Your task to perform on an android device: Find coffee shops on Maps Image 0: 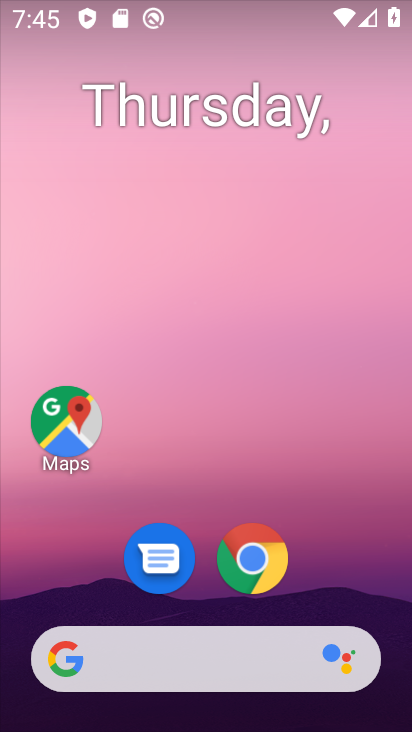
Step 0: drag from (142, 620) to (227, 61)
Your task to perform on an android device: Find coffee shops on Maps Image 1: 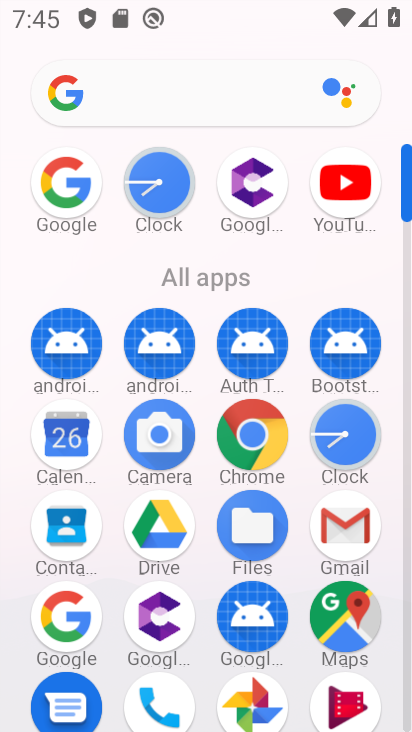
Step 1: click (334, 629)
Your task to perform on an android device: Find coffee shops on Maps Image 2: 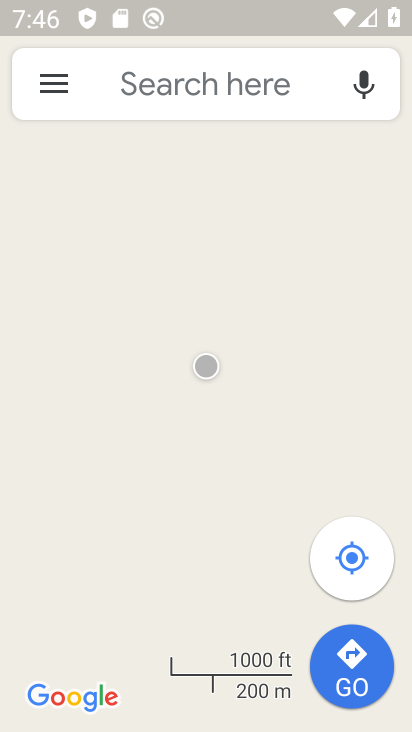
Step 2: click (221, 91)
Your task to perform on an android device: Find coffee shops on Maps Image 3: 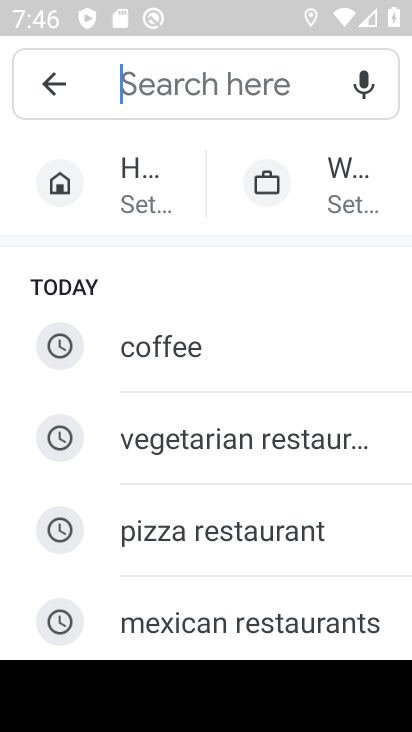
Step 3: click (185, 355)
Your task to perform on an android device: Find coffee shops on Maps Image 4: 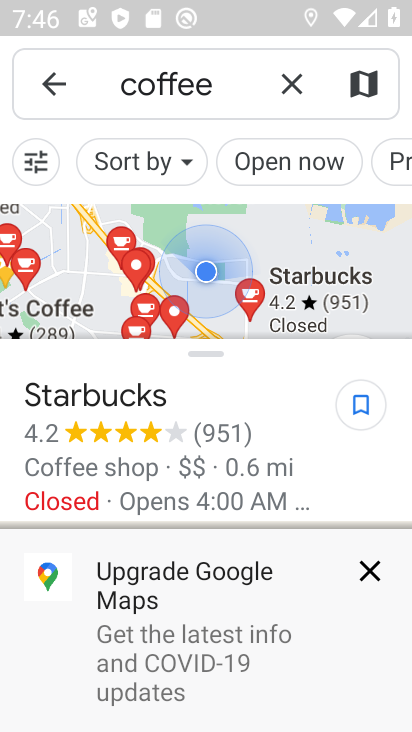
Step 4: task complete